Your task to perform on an android device: turn off location history Image 0: 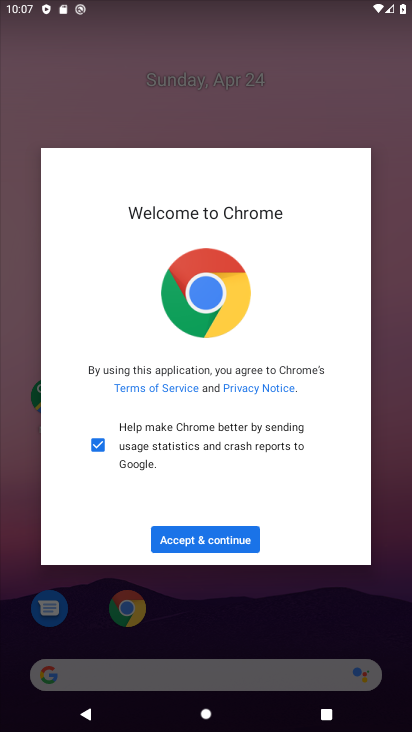
Step 0: press back button
Your task to perform on an android device: turn off location history Image 1: 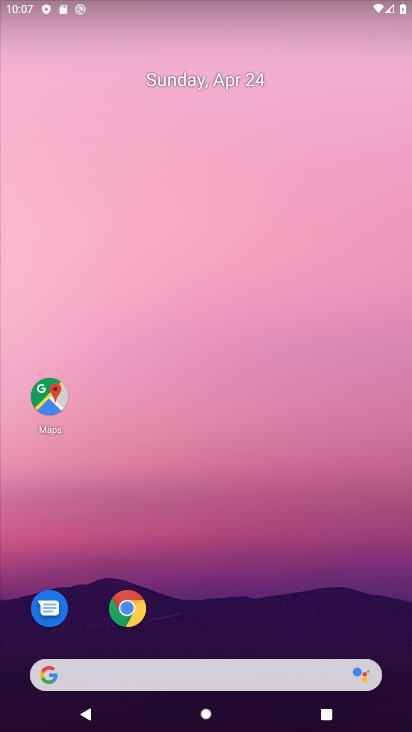
Step 1: drag from (314, 564) to (242, 0)
Your task to perform on an android device: turn off location history Image 2: 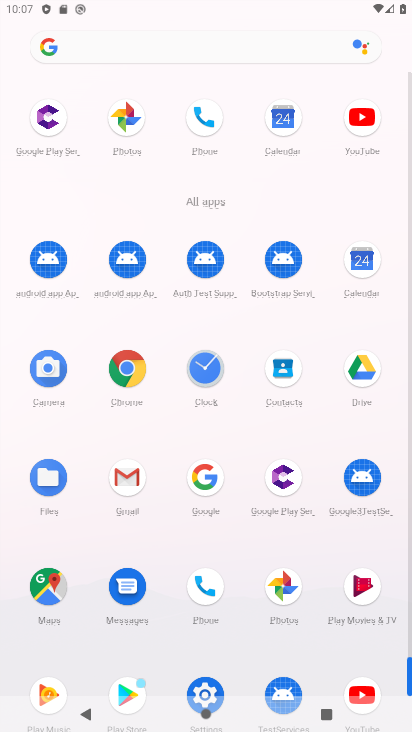
Step 2: drag from (18, 514) to (14, 197)
Your task to perform on an android device: turn off location history Image 3: 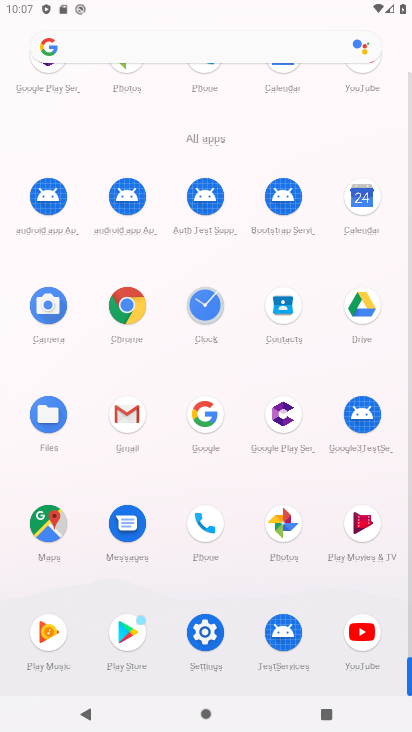
Step 3: click (203, 631)
Your task to perform on an android device: turn off location history Image 4: 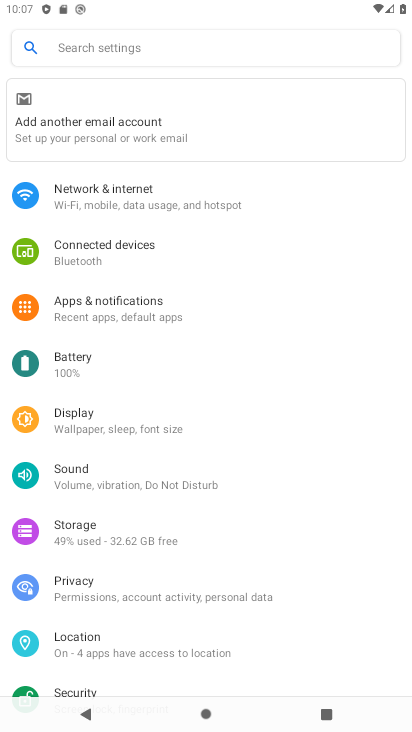
Step 4: drag from (257, 502) to (247, 188)
Your task to perform on an android device: turn off location history Image 5: 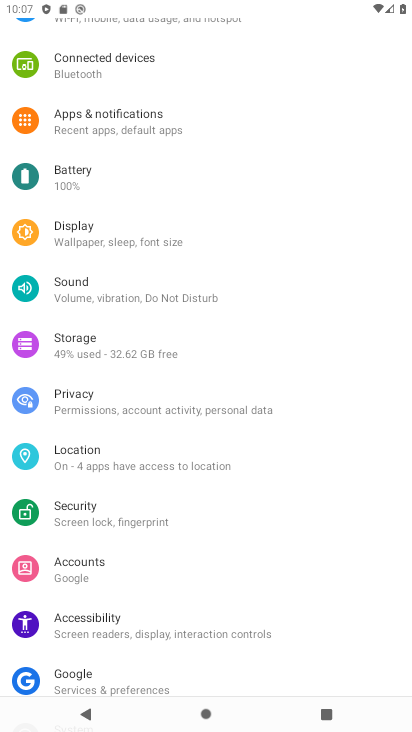
Step 5: drag from (234, 589) to (243, 225)
Your task to perform on an android device: turn off location history Image 6: 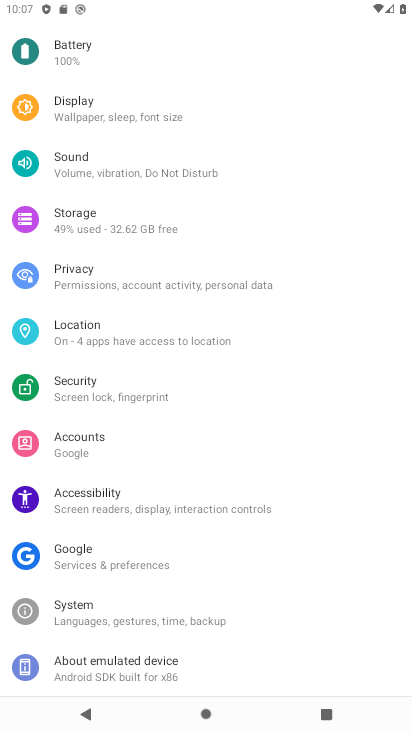
Step 6: drag from (240, 669) to (249, 278)
Your task to perform on an android device: turn off location history Image 7: 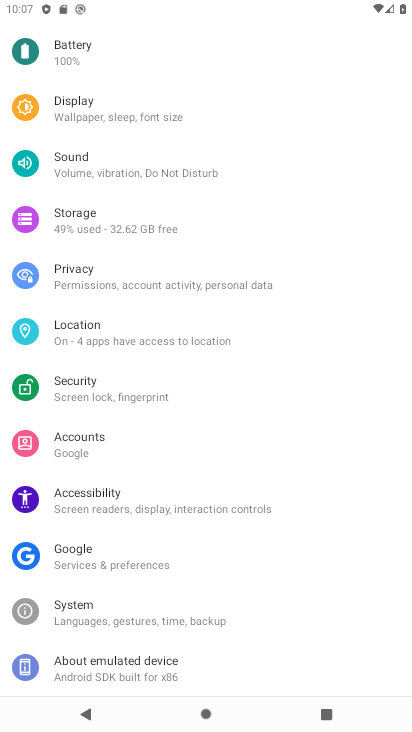
Step 7: click (85, 338)
Your task to perform on an android device: turn off location history Image 8: 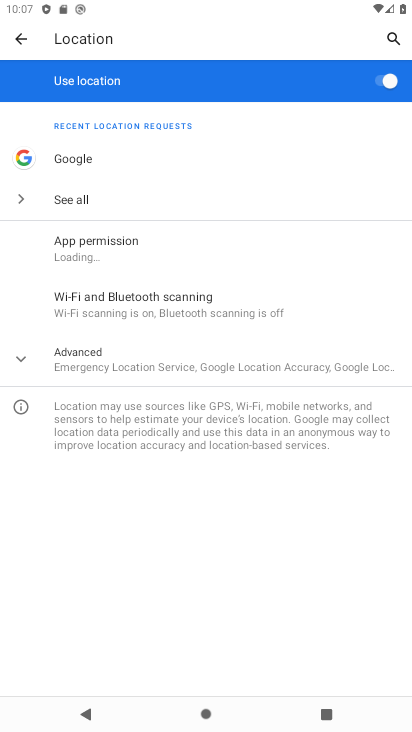
Step 8: click (76, 332)
Your task to perform on an android device: turn off location history Image 9: 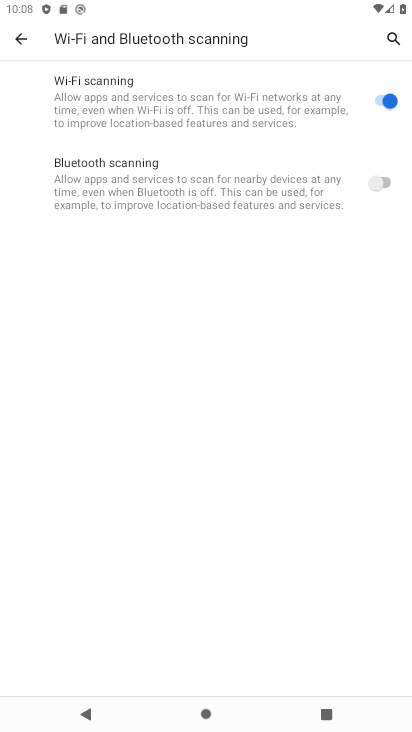
Step 9: click (25, 50)
Your task to perform on an android device: turn off location history Image 10: 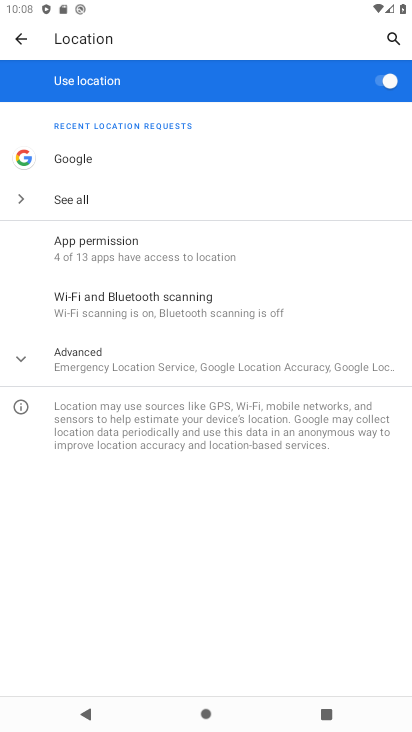
Step 10: click (87, 363)
Your task to perform on an android device: turn off location history Image 11: 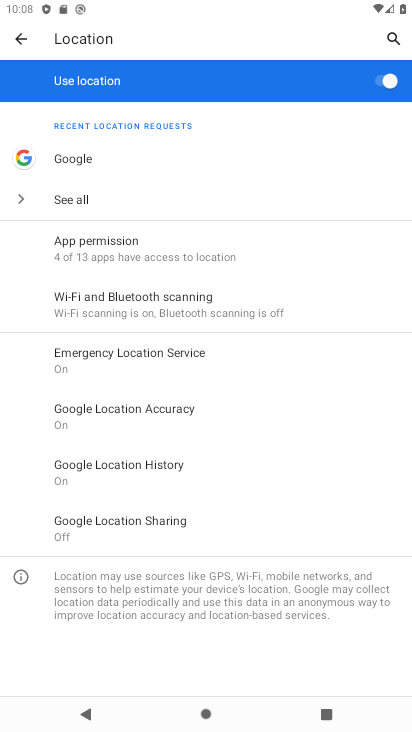
Step 11: click (140, 471)
Your task to perform on an android device: turn off location history Image 12: 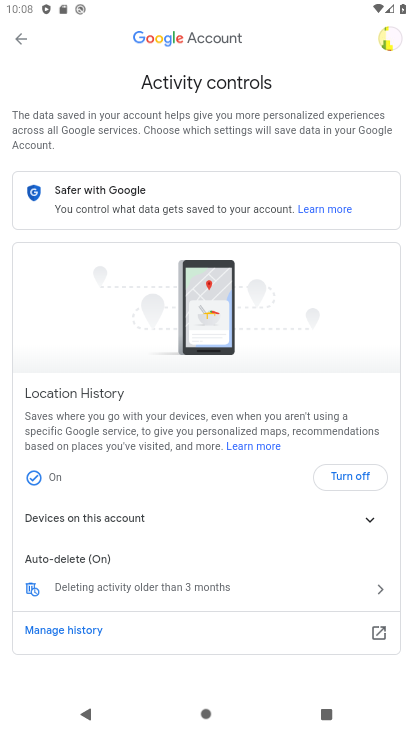
Step 12: click (335, 474)
Your task to perform on an android device: turn off location history Image 13: 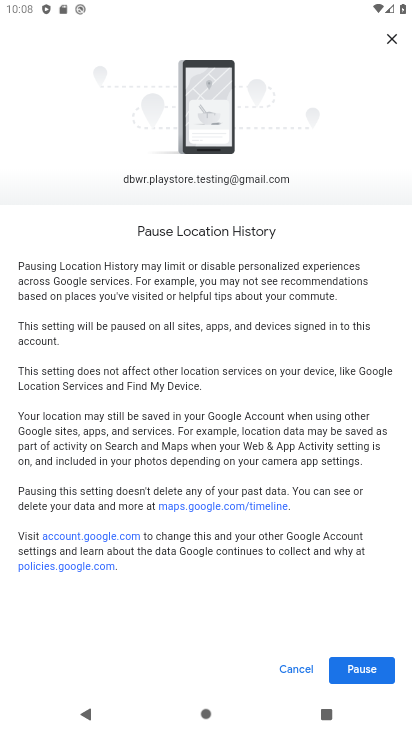
Step 13: click (359, 672)
Your task to perform on an android device: turn off location history Image 14: 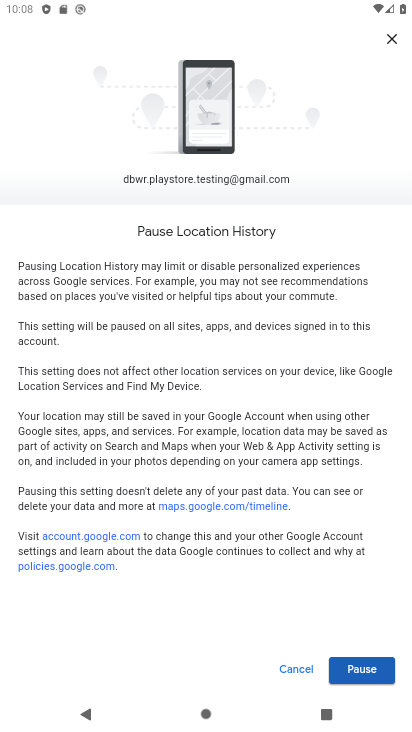
Step 14: drag from (204, 607) to (245, 418)
Your task to perform on an android device: turn off location history Image 15: 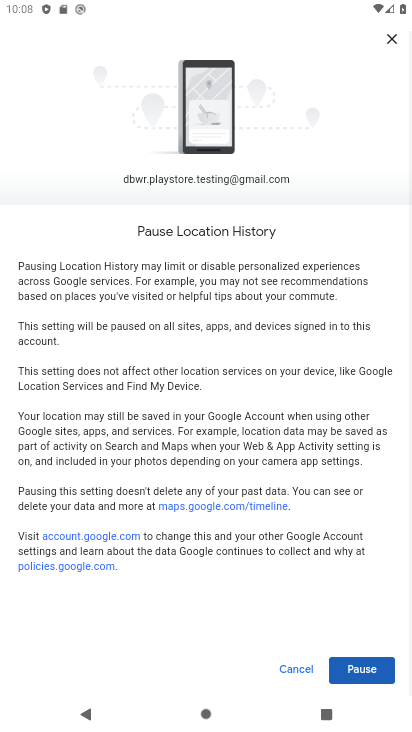
Step 15: click (387, 675)
Your task to perform on an android device: turn off location history Image 16: 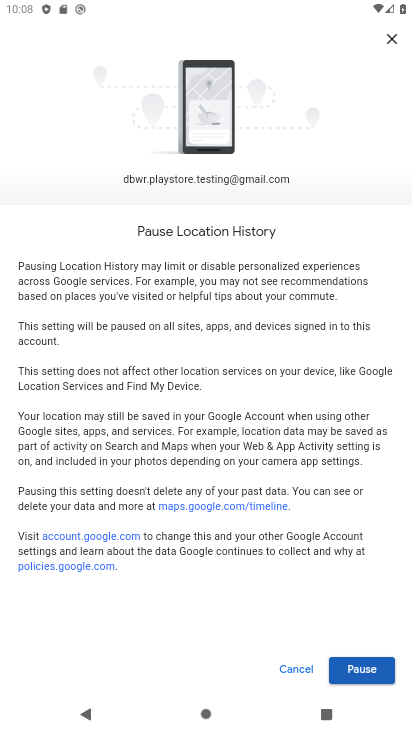
Step 16: click (387, 675)
Your task to perform on an android device: turn off location history Image 17: 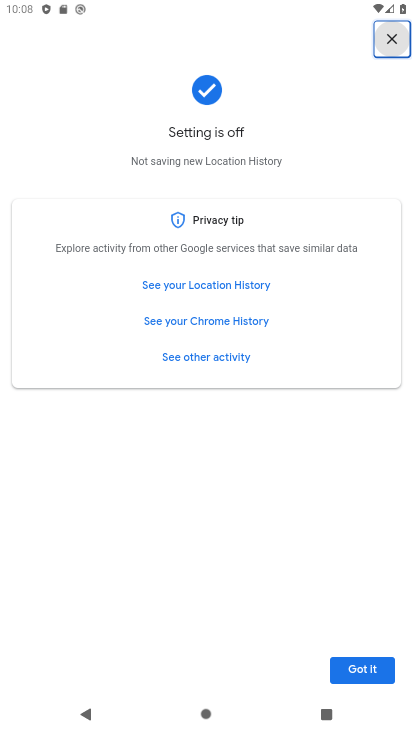
Step 17: click (387, 675)
Your task to perform on an android device: turn off location history Image 18: 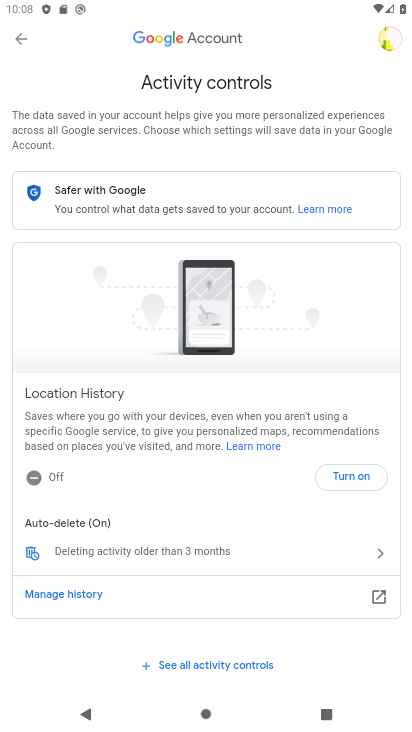
Step 18: task complete